Your task to perform on an android device: add a contact in the contacts app Image 0: 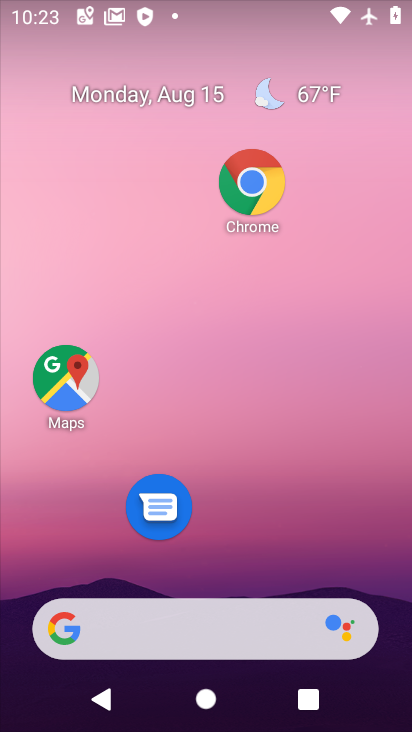
Step 0: drag from (303, 592) to (331, 75)
Your task to perform on an android device: add a contact in the contacts app Image 1: 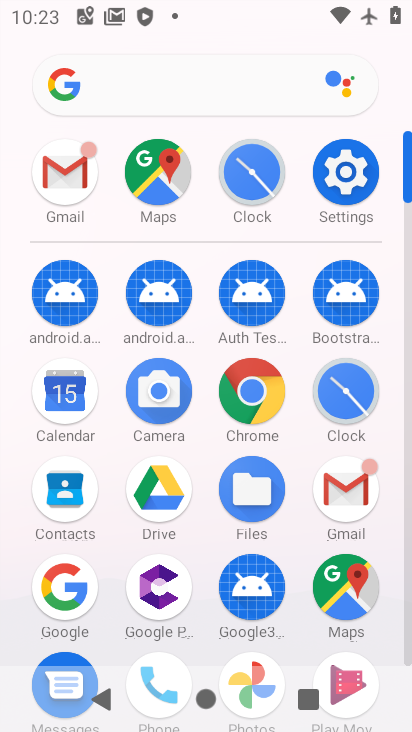
Step 1: click (72, 500)
Your task to perform on an android device: add a contact in the contacts app Image 2: 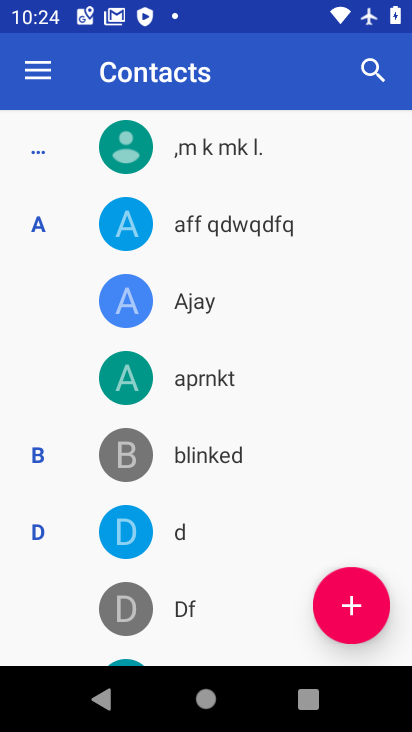
Step 2: click (352, 634)
Your task to perform on an android device: add a contact in the contacts app Image 3: 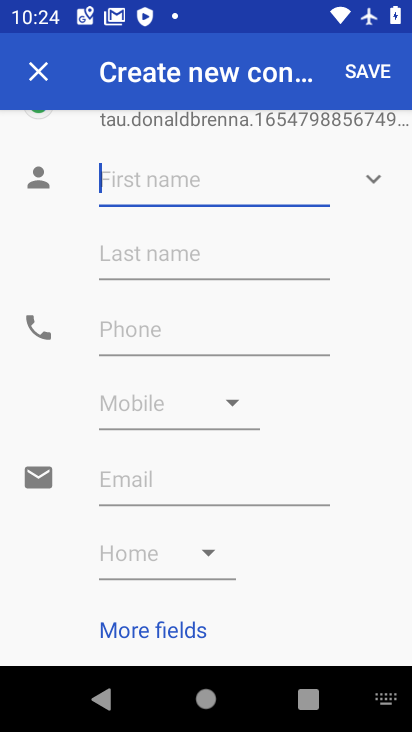
Step 3: type "lksfdg"
Your task to perform on an android device: add a contact in the contacts app Image 4: 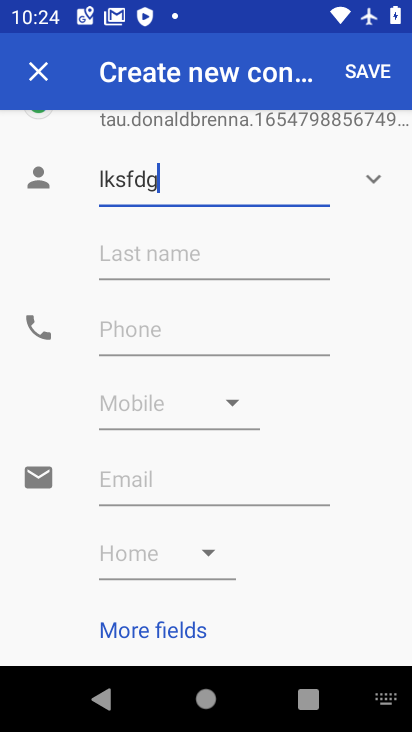
Step 4: click (169, 269)
Your task to perform on an android device: add a contact in the contacts app Image 5: 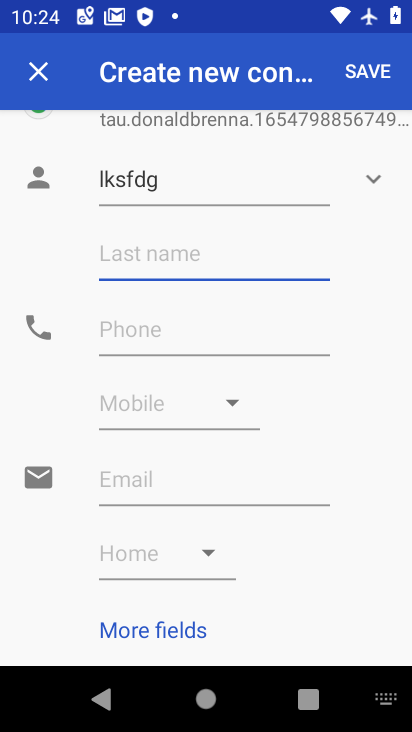
Step 5: type "kjhcv"
Your task to perform on an android device: add a contact in the contacts app Image 6: 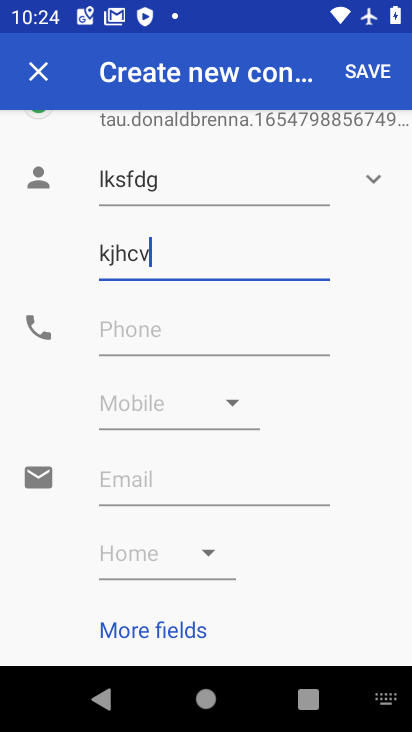
Step 6: click (217, 329)
Your task to perform on an android device: add a contact in the contacts app Image 7: 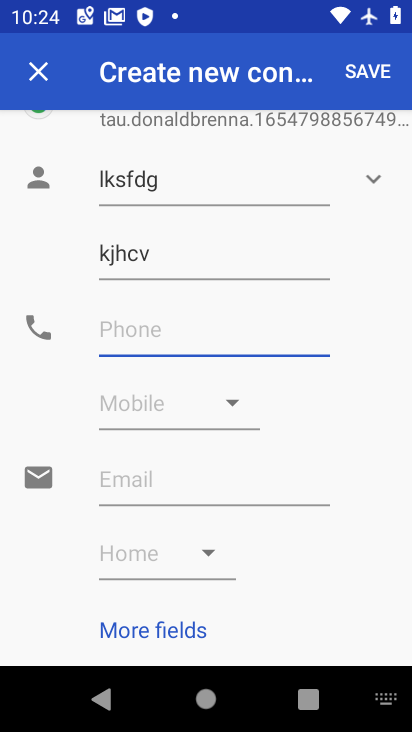
Step 7: type "0987654321345678"
Your task to perform on an android device: add a contact in the contacts app Image 8: 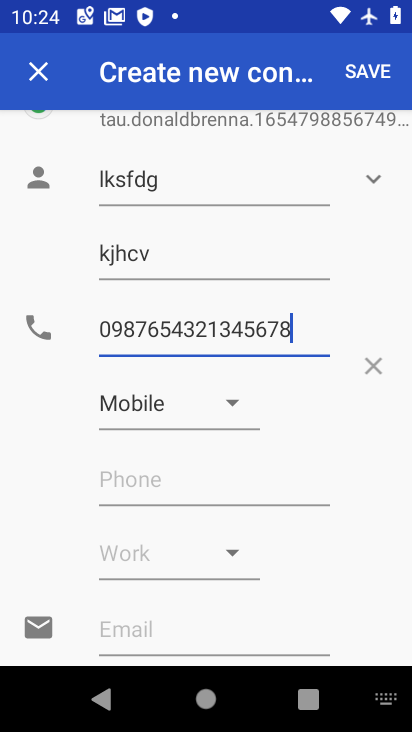
Step 8: click (380, 91)
Your task to perform on an android device: add a contact in the contacts app Image 9: 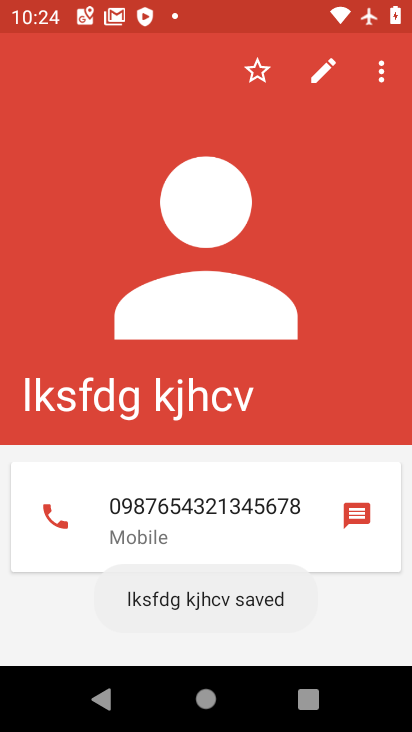
Step 9: task complete